Your task to perform on an android device: What's the weather going to be this weekend? Image 0: 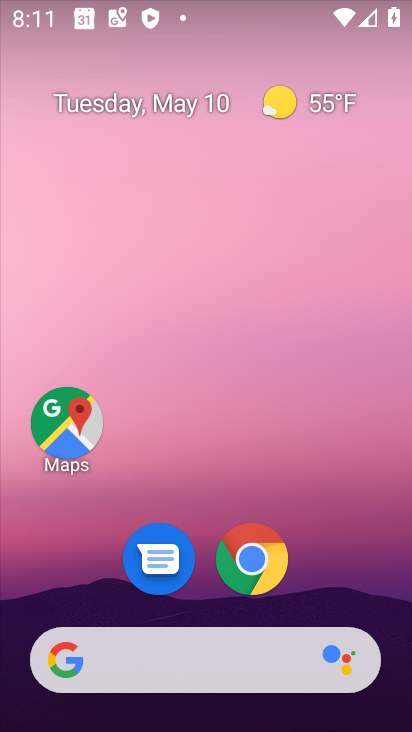
Step 0: drag from (182, 724) to (185, 264)
Your task to perform on an android device: What's the weather going to be this weekend? Image 1: 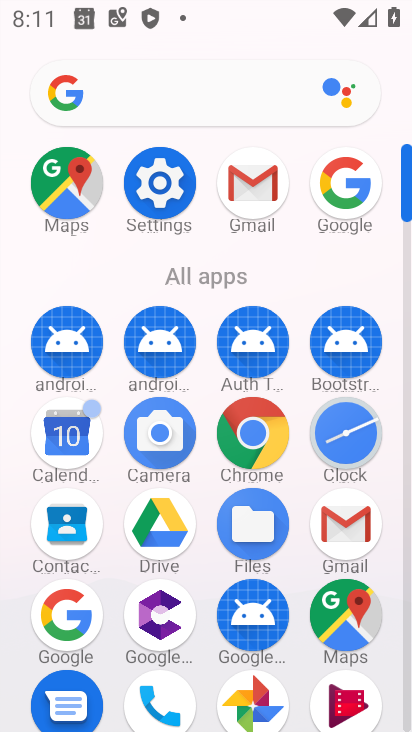
Step 1: click (74, 607)
Your task to perform on an android device: What's the weather going to be this weekend? Image 2: 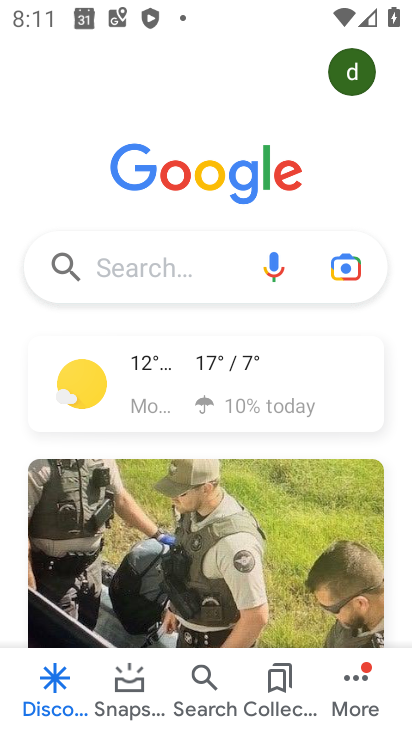
Step 2: click (92, 385)
Your task to perform on an android device: What's the weather going to be this weekend? Image 3: 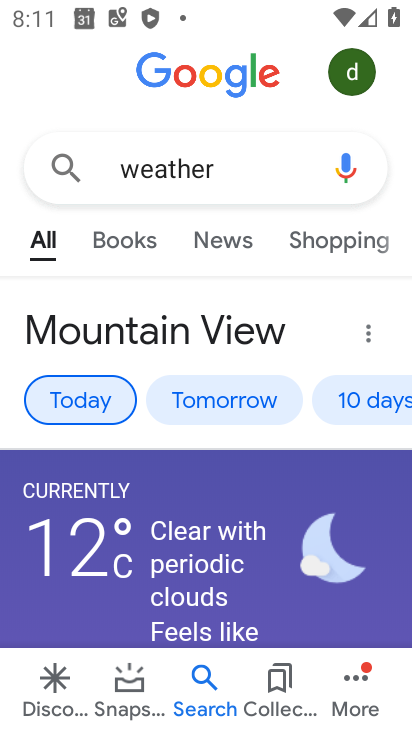
Step 3: click (345, 397)
Your task to perform on an android device: What's the weather going to be this weekend? Image 4: 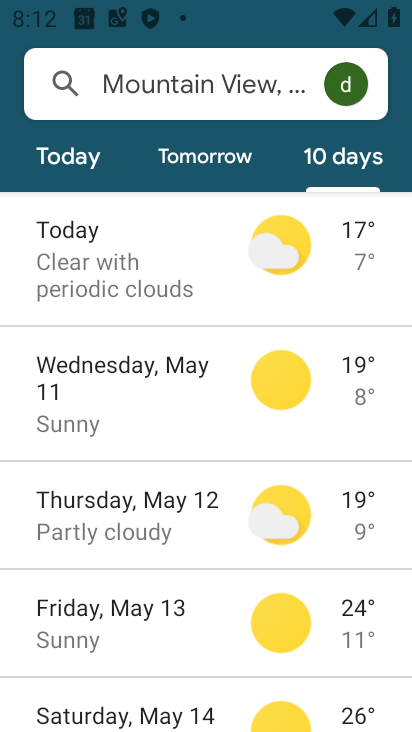
Step 4: drag from (204, 663) to (189, 464)
Your task to perform on an android device: What's the weather going to be this weekend? Image 5: 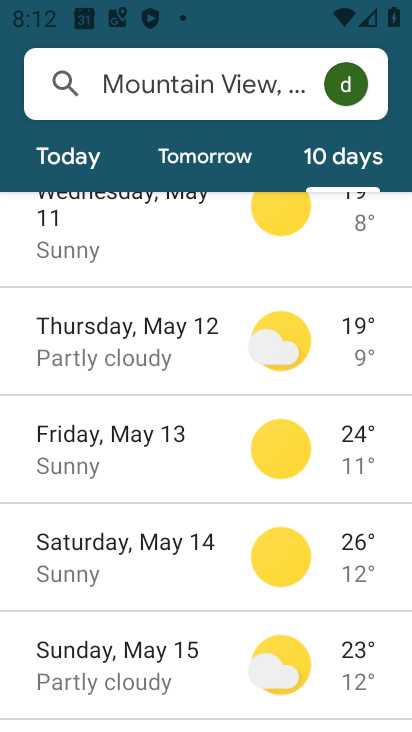
Step 5: click (157, 549)
Your task to perform on an android device: What's the weather going to be this weekend? Image 6: 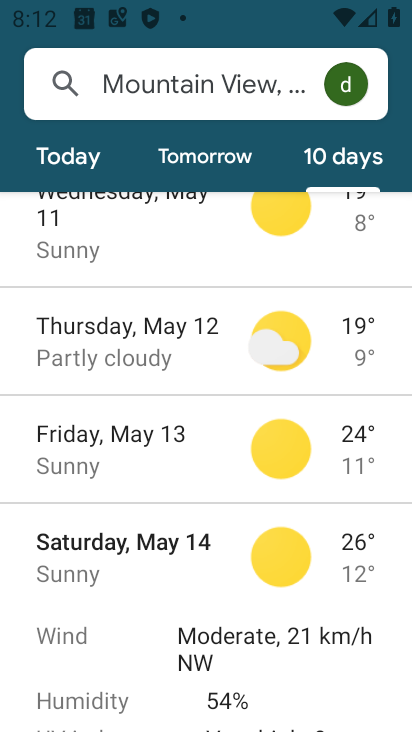
Step 6: task complete